Your task to perform on an android device: find photos in the google photos app Image 0: 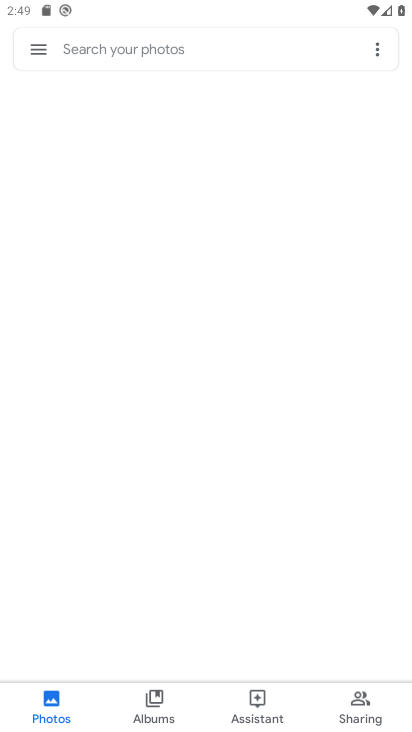
Step 0: drag from (211, 566) to (201, 167)
Your task to perform on an android device: find photos in the google photos app Image 1: 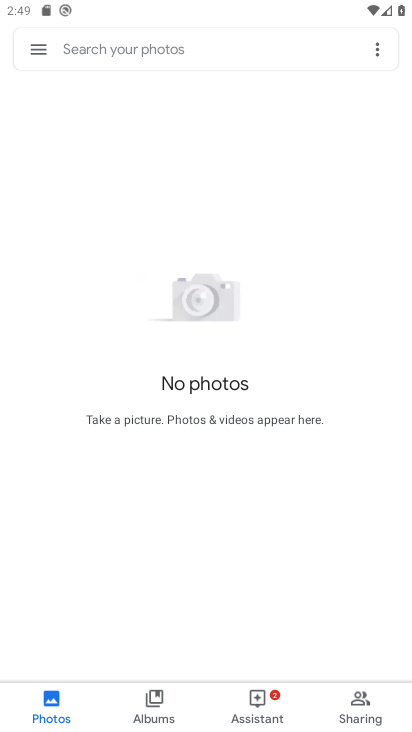
Step 1: press back button
Your task to perform on an android device: find photos in the google photos app Image 2: 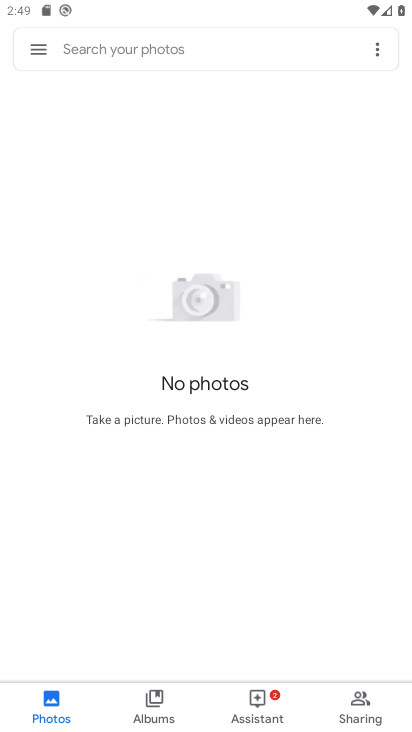
Step 2: press back button
Your task to perform on an android device: find photos in the google photos app Image 3: 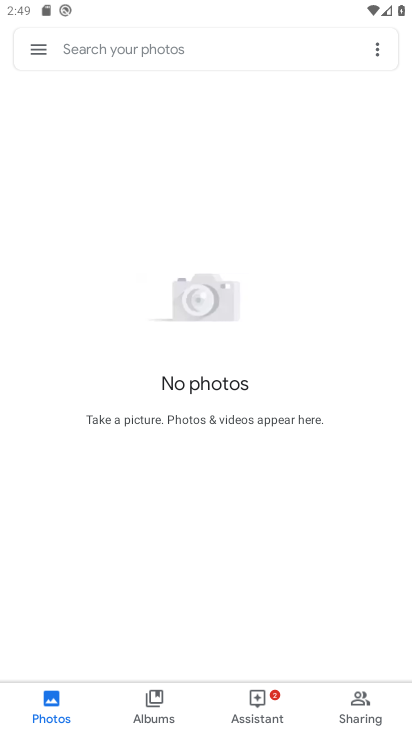
Step 3: press home button
Your task to perform on an android device: find photos in the google photos app Image 4: 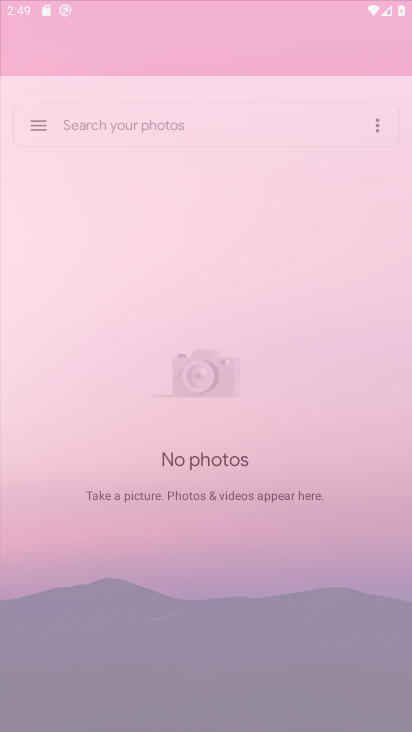
Step 4: press back button
Your task to perform on an android device: find photos in the google photos app Image 5: 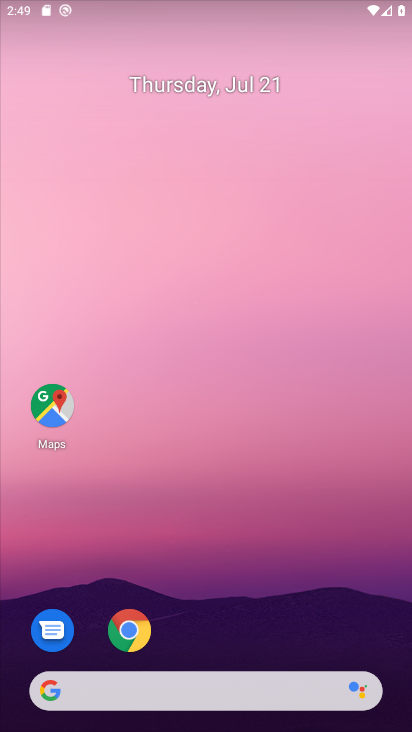
Step 5: drag from (273, 634) to (215, 133)
Your task to perform on an android device: find photos in the google photos app Image 6: 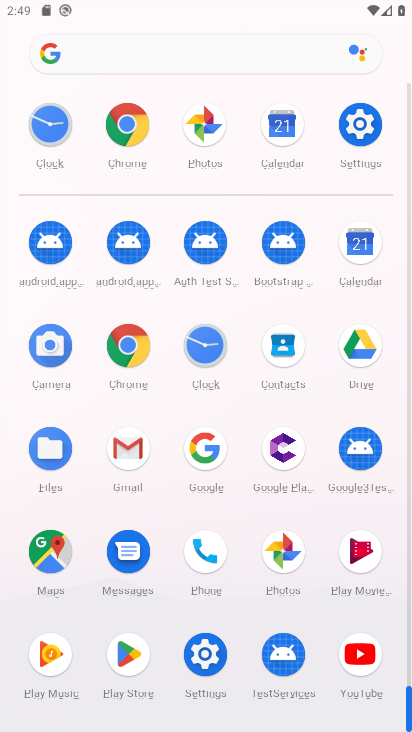
Step 6: click (274, 555)
Your task to perform on an android device: find photos in the google photos app Image 7: 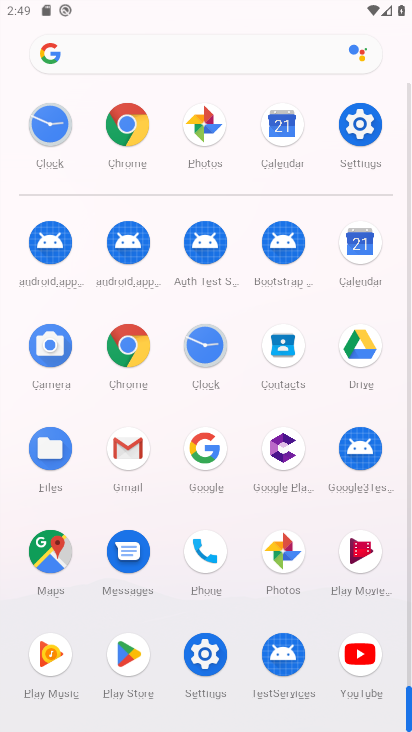
Step 7: click (274, 555)
Your task to perform on an android device: find photos in the google photos app Image 8: 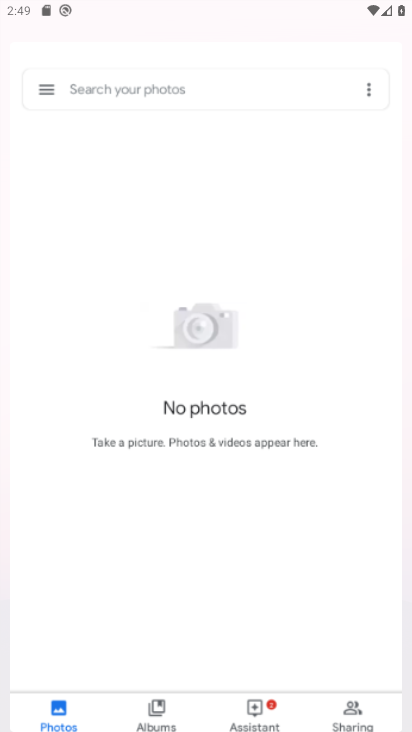
Step 8: click (274, 555)
Your task to perform on an android device: find photos in the google photos app Image 9: 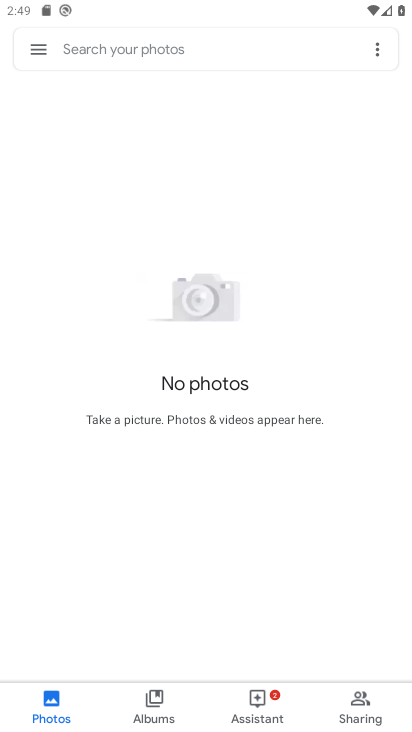
Step 9: click (274, 555)
Your task to perform on an android device: find photos in the google photos app Image 10: 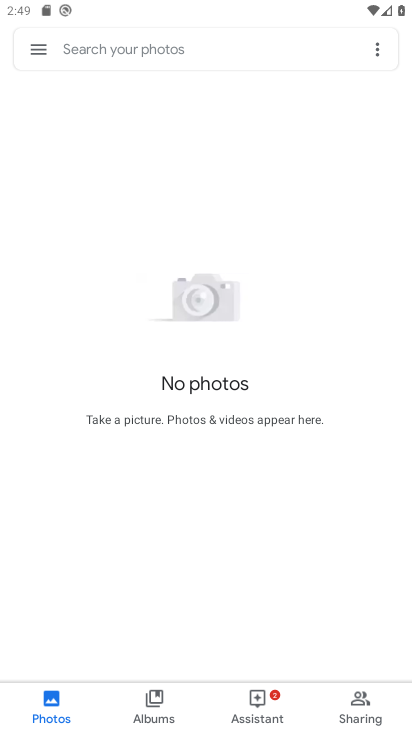
Step 10: task complete